Your task to perform on an android device: move an email to a new category in the gmail app Image 0: 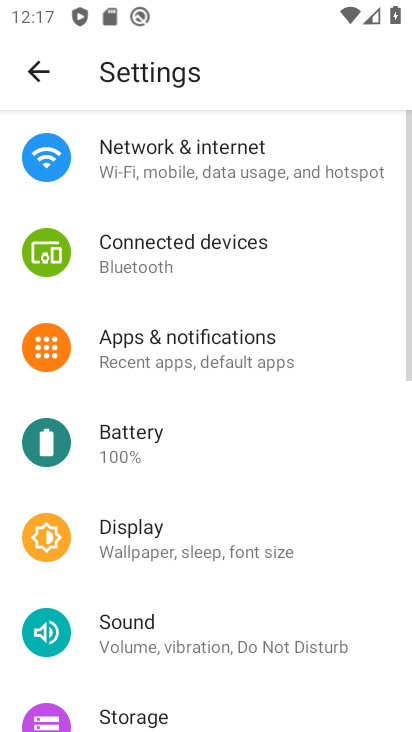
Step 0: press home button
Your task to perform on an android device: move an email to a new category in the gmail app Image 1: 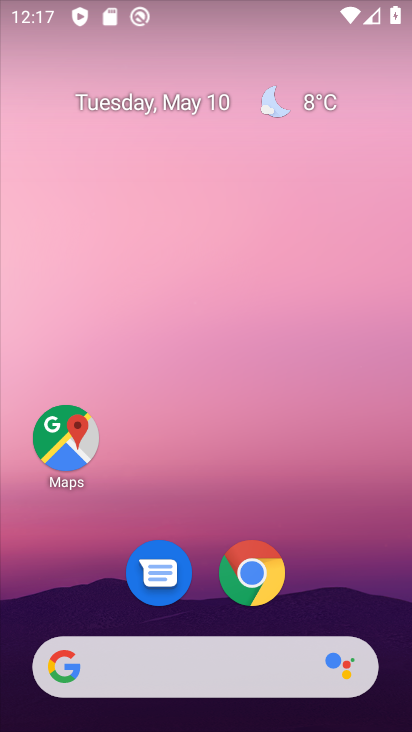
Step 1: drag from (224, 484) to (219, 86)
Your task to perform on an android device: move an email to a new category in the gmail app Image 2: 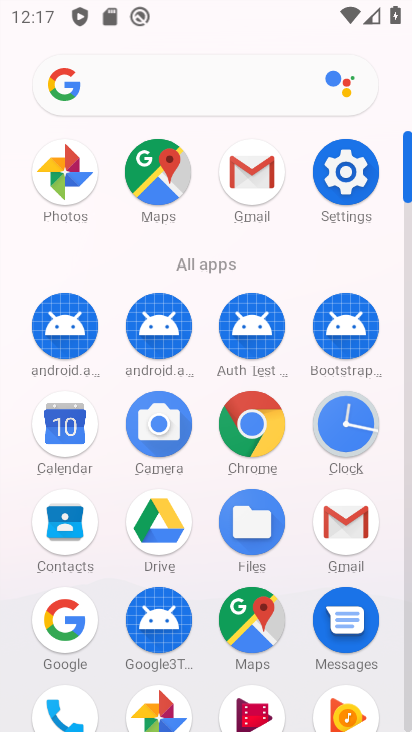
Step 2: click (354, 538)
Your task to perform on an android device: move an email to a new category in the gmail app Image 3: 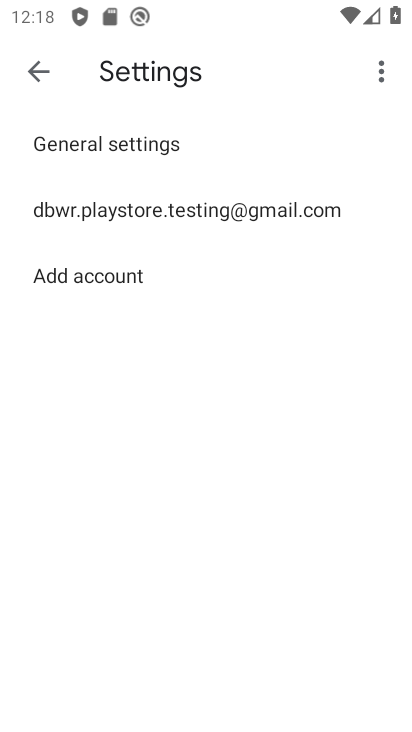
Step 3: click (42, 79)
Your task to perform on an android device: move an email to a new category in the gmail app Image 4: 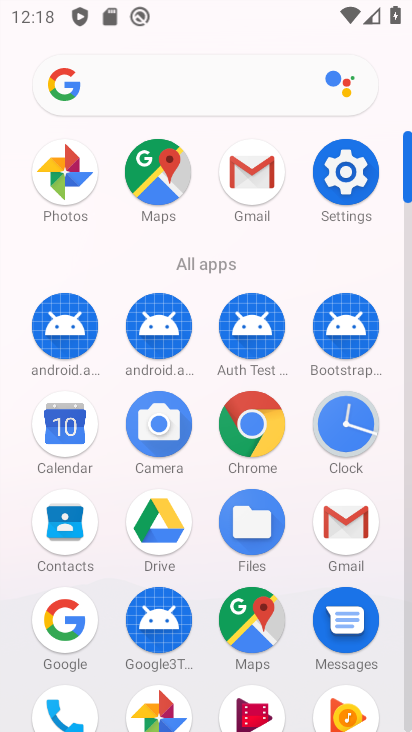
Step 4: click (358, 537)
Your task to perform on an android device: move an email to a new category in the gmail app Image 5: 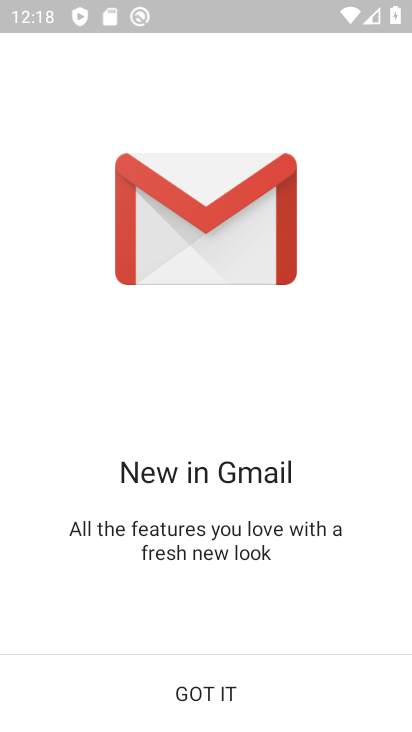
Step 5: click (223, 679)
Your task to perform on an android device: move an email to a new category in the gmail app Image 6: 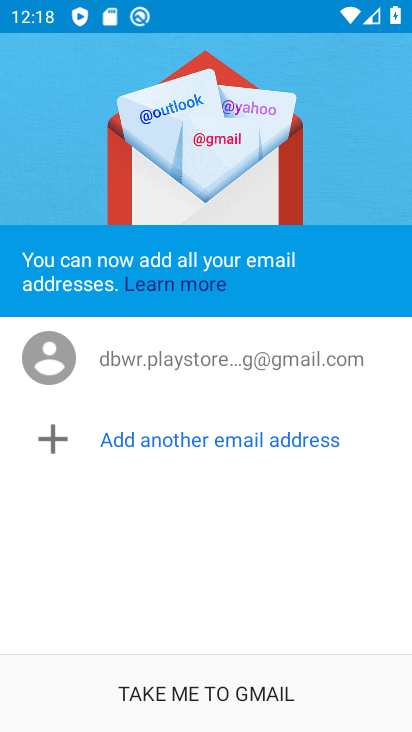
Step 6: click (225, 688)
Your task to perform on an android device: move an email to a new category in the gmail app Image 7: 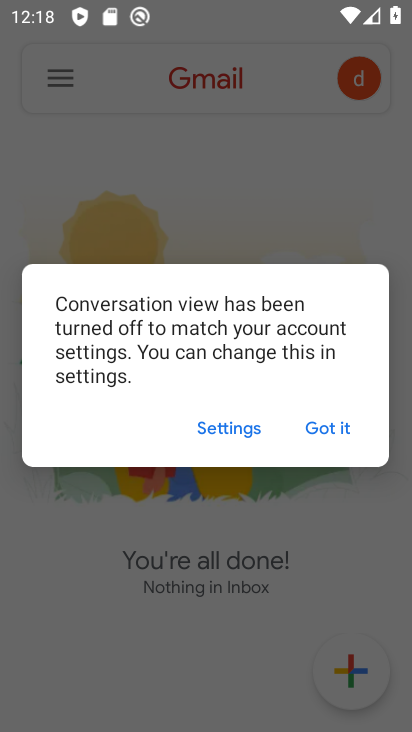
Step 7: click (309, 416)
Your task to perform on an android device: move an email to a new category in the gmail app Image 8: 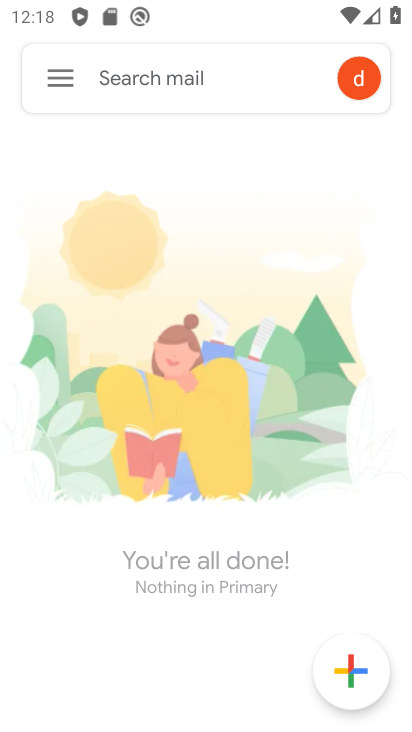
Step 8: click (58, 75)
Your task to perform on an android device: move an email to a new category in the gmail app Image 9: 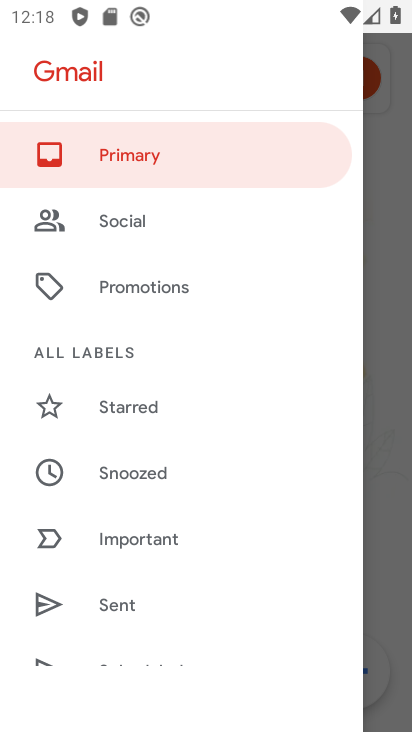
Step 9: drag from (130, 544) to (157, 64)
Your task to perform on an android device: move an email to a new category in the gmail app Image 10: 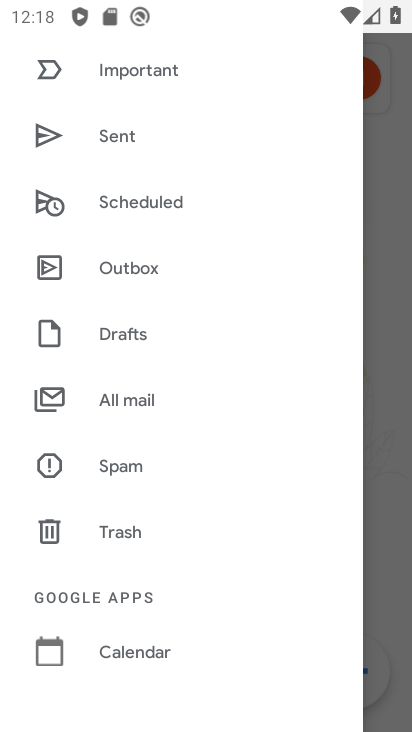
Step 10: click (131, 401)
Your task to perform on an android device: move an email to a new category in the gmail app Image 11: 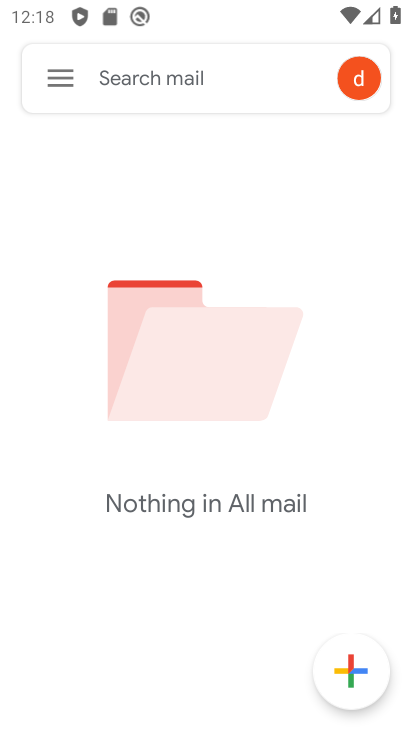
Step 11: task complete